Your task to perform on an android device: When is my next appointment? Image 0: 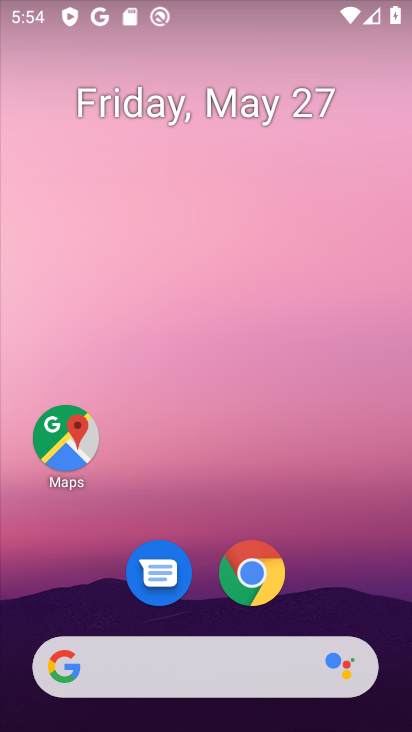
Step 0: drag from (205, 613) to (217, 71)
Your task to perform on an android device: When is my next appointment? Image 1: 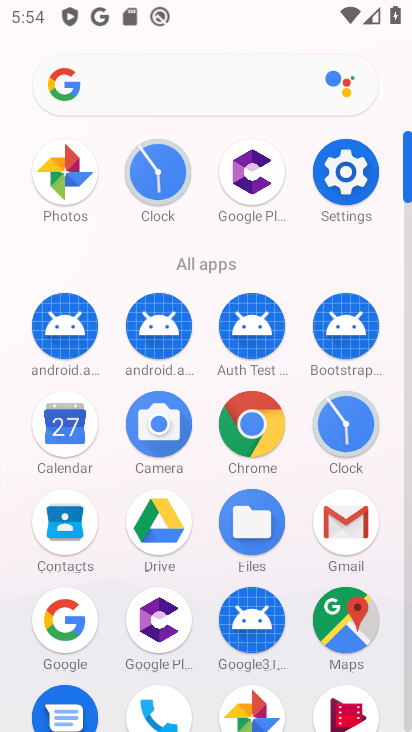
Step 1: click (71, 422)
Your task to perform on an android device: When is my next appointment? Image 2: 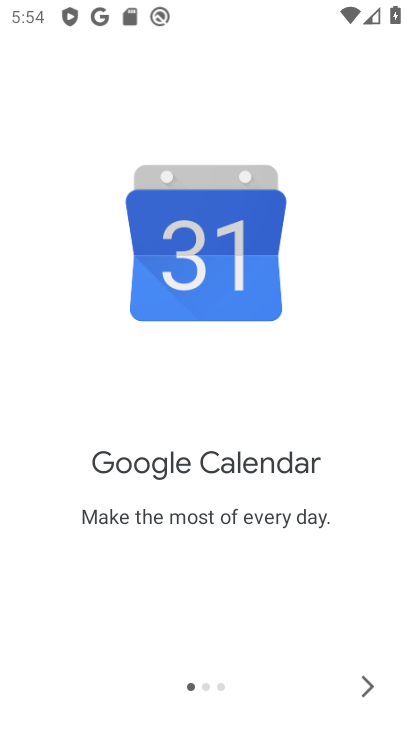
Step 2: click (350, 686)
Your task to perform on an android device: When is my next appointment? Image 3: 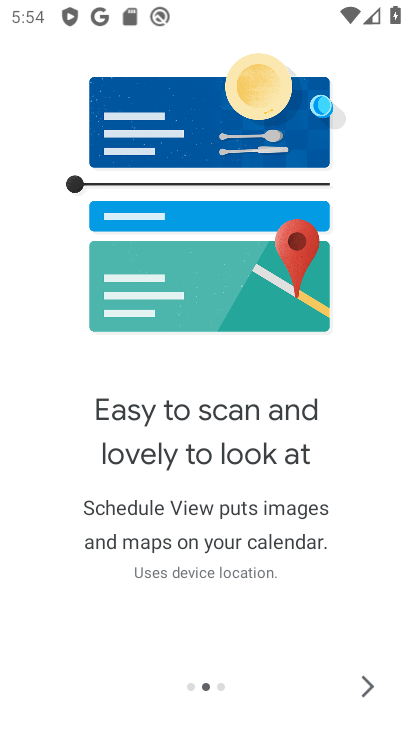
Step 3: click (365, 677)
Your task to perform on an android device: When is my next appointment? Image 4: 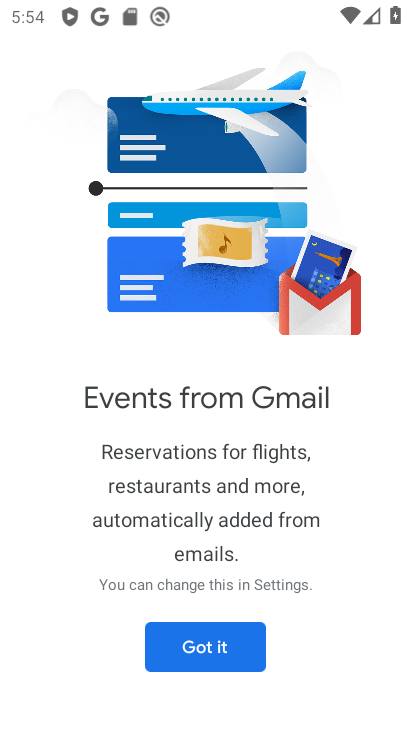
Step 4: click (209, 646)
Your task to perform on an android device: When is my next appointment? Image 5: 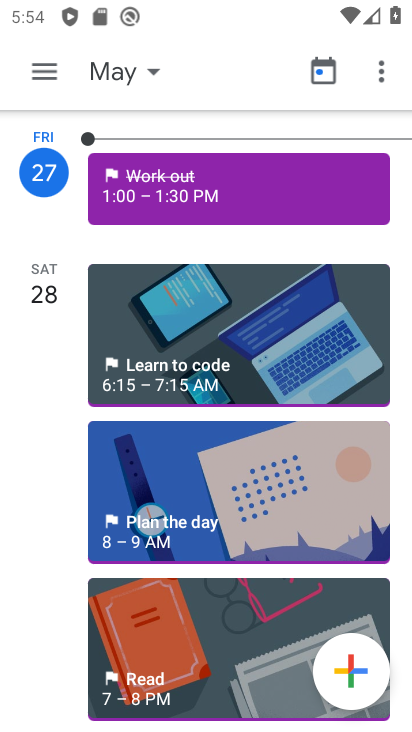
Step 5: task complete